Your task to perform on an android device: turn on the 12-hour format for clock Image 0: 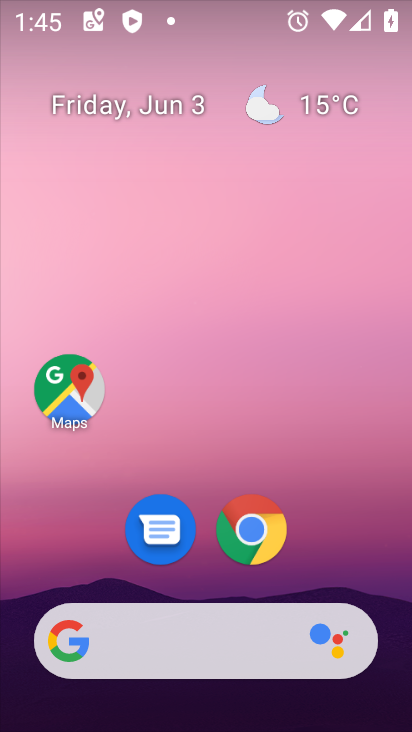
Step 0: drag from (366, 552) to (372, 209)
Your task to perform on an android device: turn on the 12-hour format for clock Image 1: 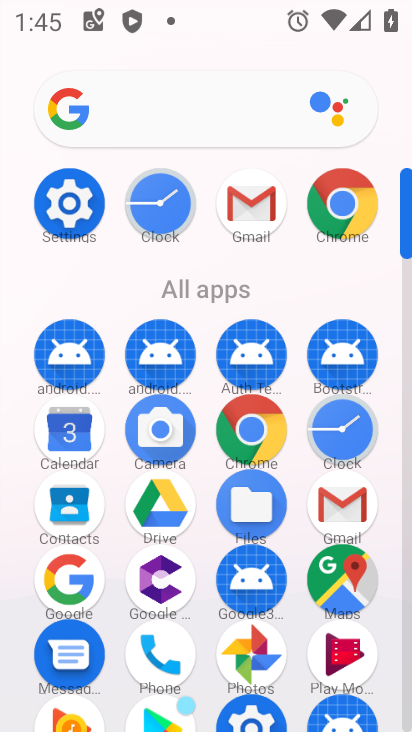
Step 1: click (362, 434)
Your task to perform on an android device: turn on the 12-hour format for clock Image 2: 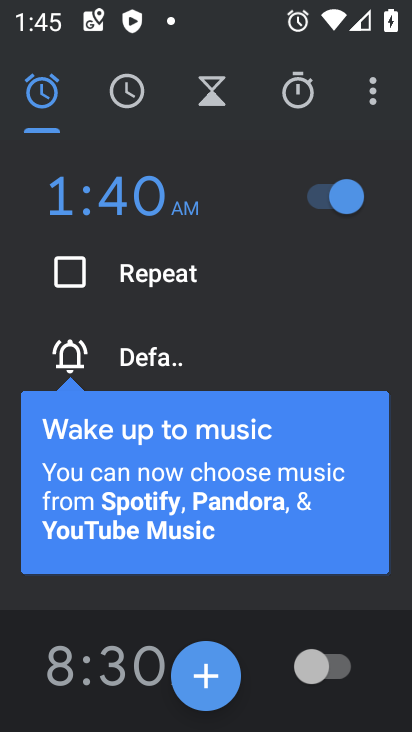
Step 2: click (374, 105)
Your task to perform on an android device: turn on the 12-hour format for clock Image 3: 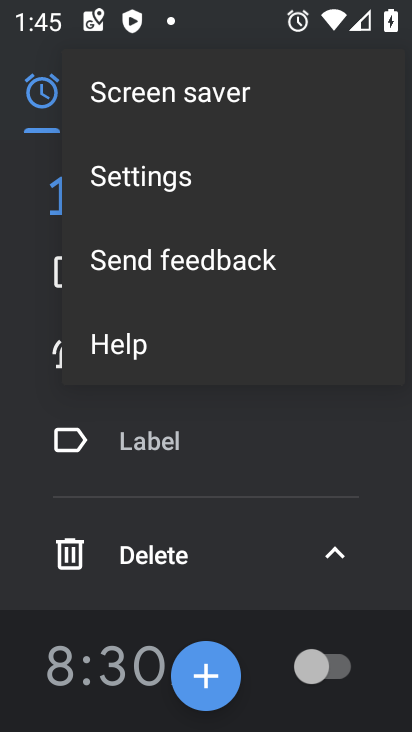
Step 3: click (214, 194)
Your task to perform on an android device: turn on the 12-hour format for clock Image 4: 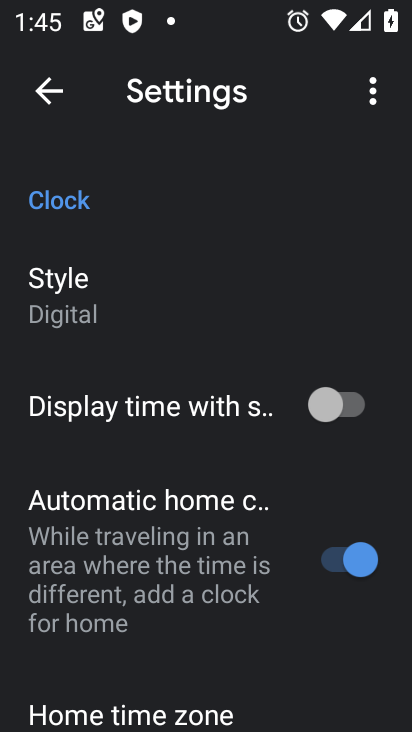
Step 4: drag from (284, 541) to (274, 419)
Your task to perform on an android device: turn on the 12-hour format for clock Image 5: 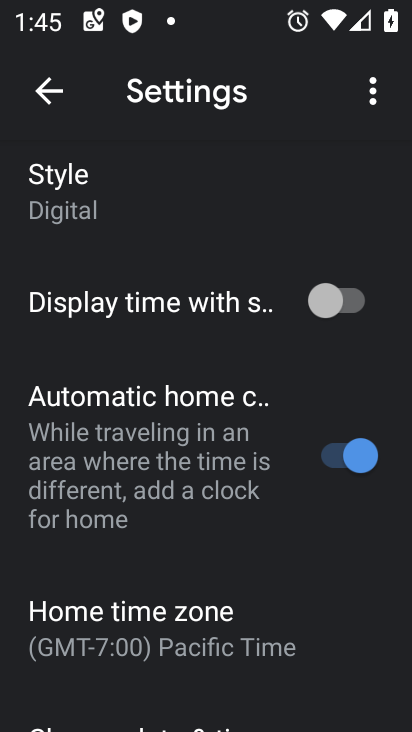
Step 5: drag from (275, 533) to (285, 429)
Your task to perform on an android device: turn on the 12-hour format for clock Image 6: 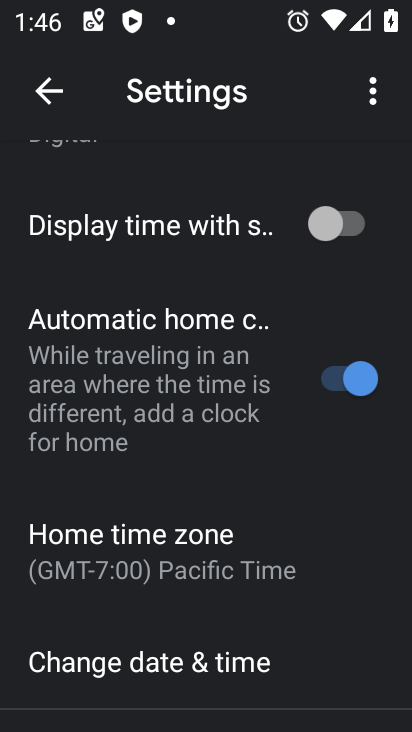
Step 6: drag from (296, 519) to (296, 430)
Your task to perform on an android device: turn on the 12-hour format for clock Image 7: 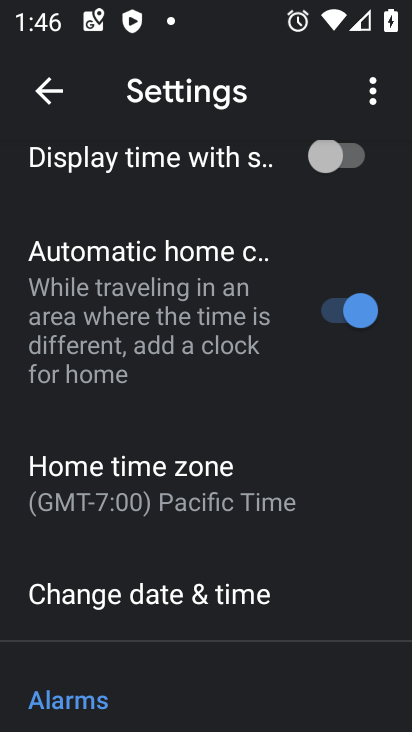
Step 7: drag from (317, 552) to (315, 424)
Your task to perform on an android device: turn on the 12-hour format for clock Image 8: 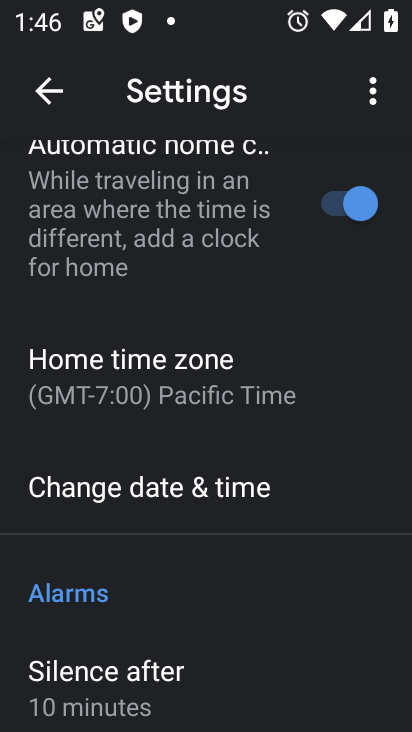
Step 8: drag from (323, 544) to (325, 395)
Your task to perform on an android device: turn on the 12-hour format for clock Image 9: 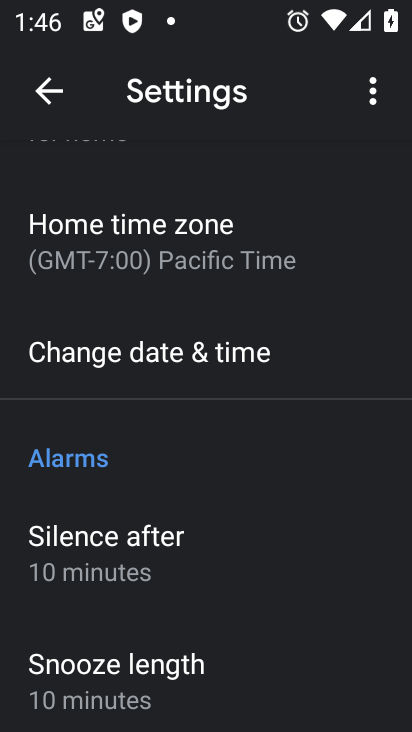
Step 9: click (262, 371)
Your task to perform on an android device: turn on the 12-hour format for clock Image 10: 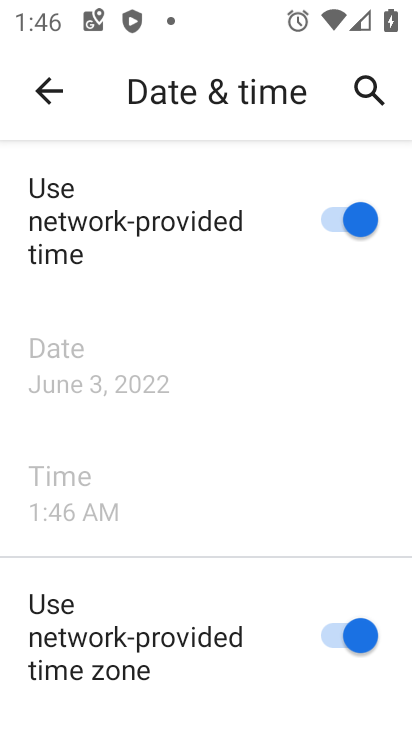
Step 10: drag from (271, 519) to (282, 327)
Your task to perform on an android device: turn on the 12-hour format for clock Image 11: 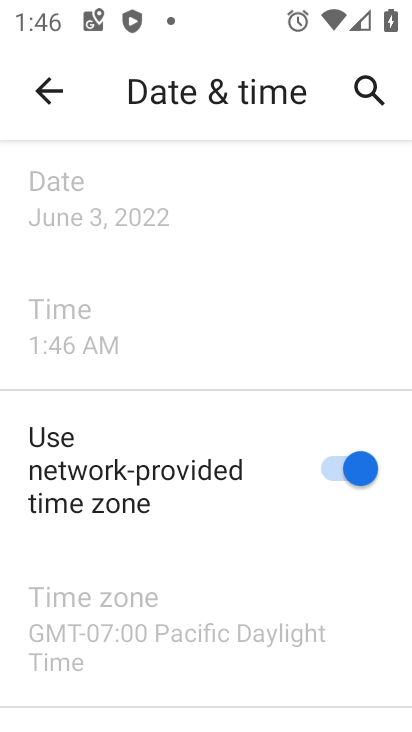
Step 11: drag from (279, 547) to (278, 378)
Your task to perform on an android device: turn on the 12-hour format for clock Image 12: 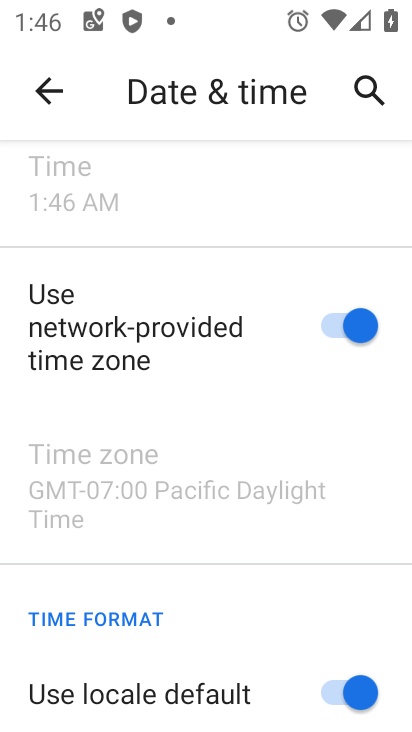
Step 12: drag from (280, 602) to (282, 391)
Your task to perform on an android device: turn on the 12-hour format for clock Image 13: 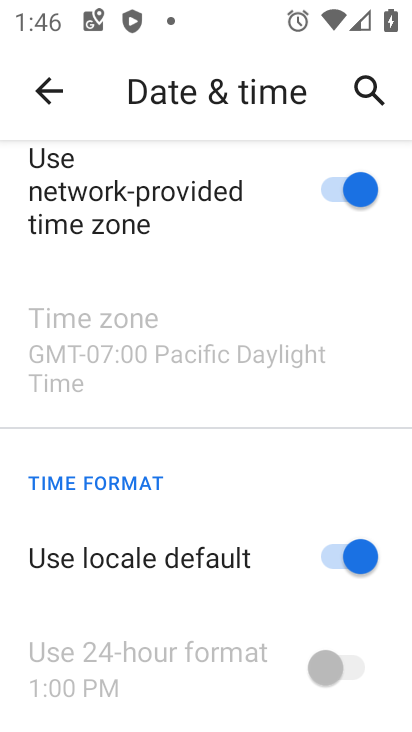
Step 13: click (345, 558)
Your task to perform on an android device: turn on the 12-hour format for clock Image 14: 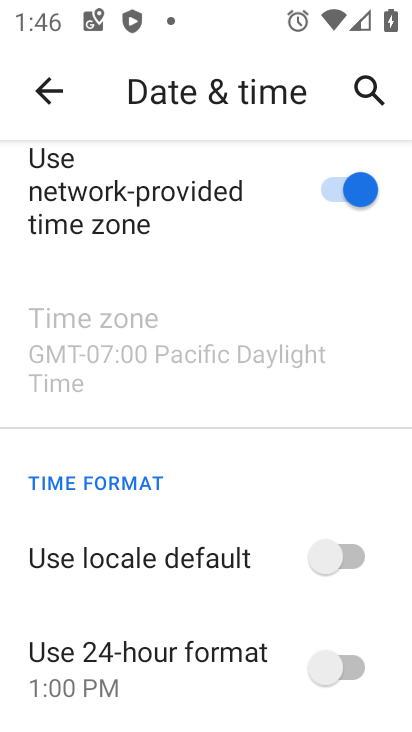
Step 14: task complete